Your task to perform on an android device: turn on improve location accuracy Image 0: 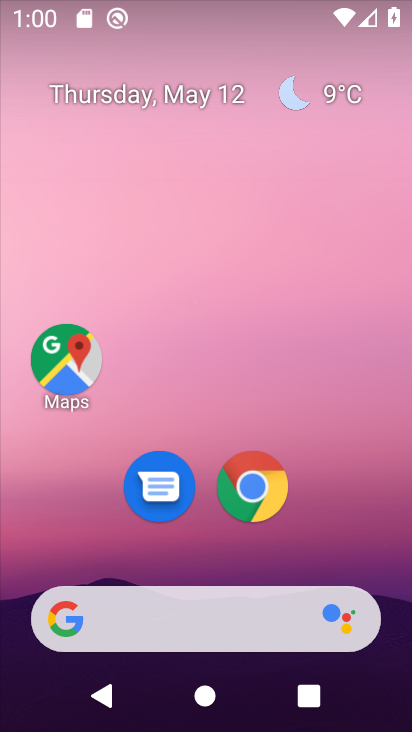
Step 0: drag from (153, 586) to (150, 255)
Your task to perform on an android device: turn on improve location accuracy Image 1: 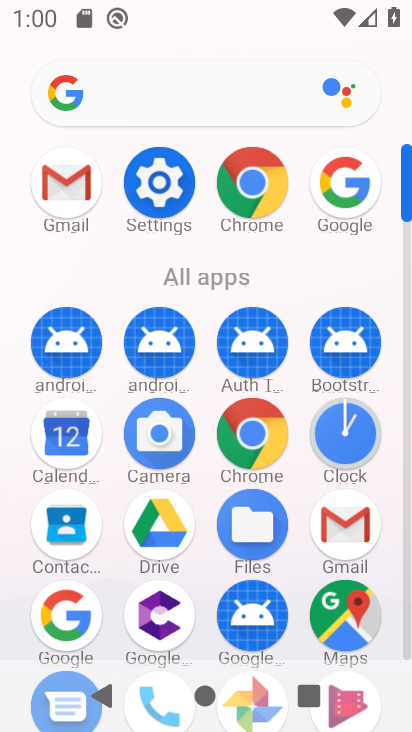
Step 1: click (163, 178)
Your task to perform on an android device: turn on improve location accuracy Image 2: 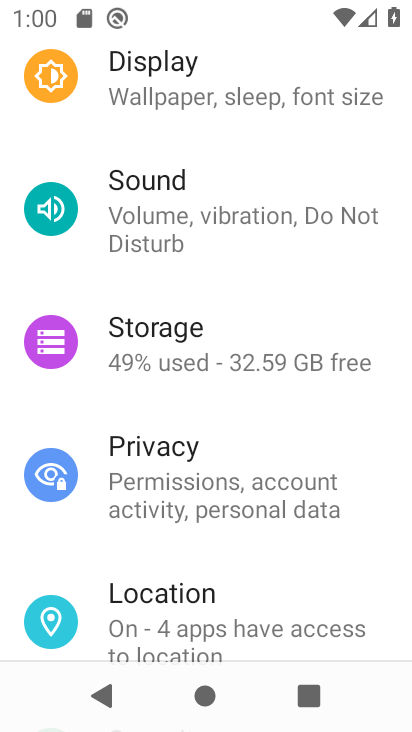
Step 2: click (205, 616)
Your task to perform on an android device: turn on improve location accuracy Image 3: 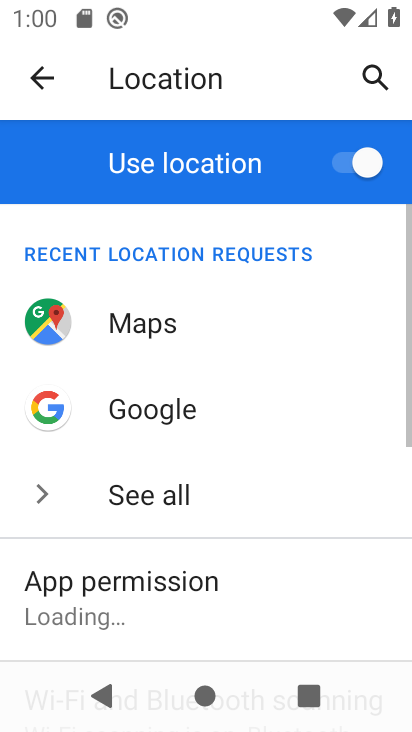
Step 3: drag from (201, 630) to (208, 254)
Your task to perform on an android device: turn on improve location accuracy Image 4: 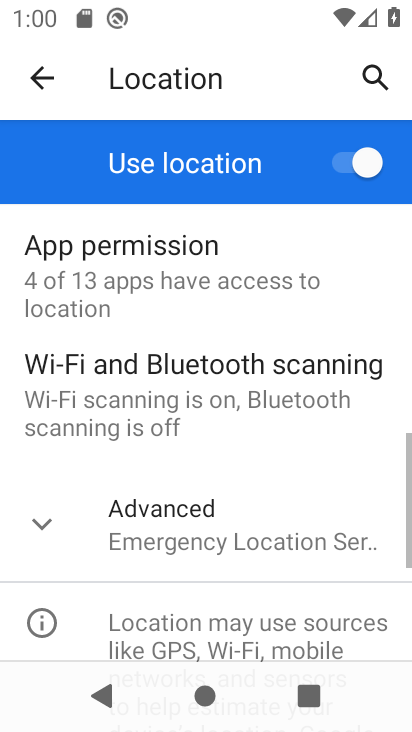
Step 4: click (154, 536)
Your task to perform on an android device: turn on improve location accuracy Image 5: 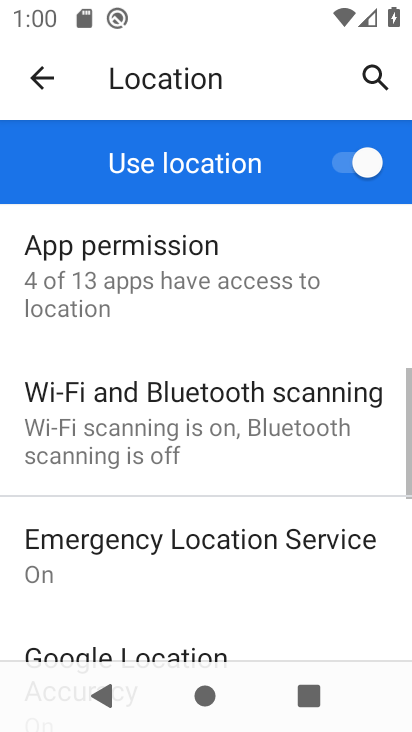
Step 5: drag from (188, 612) to (233, 210)
Your task to perform on an android device: turn on improve location accuracy Image 6: 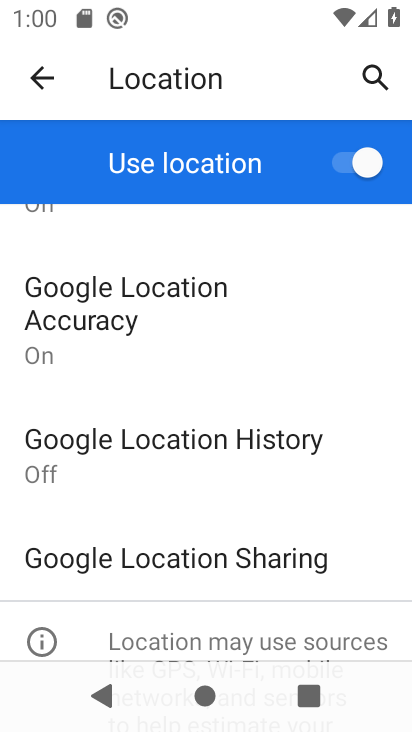
Step 6: click (107, 319)
Your task to perform on an android device: turn on improve location accuracy Image 7: 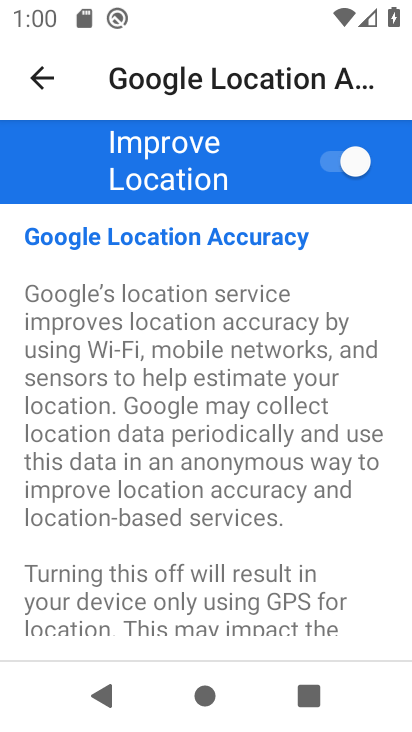
Step 7: task complete